Your task to perform on an android device: Open notification settings Image 0: 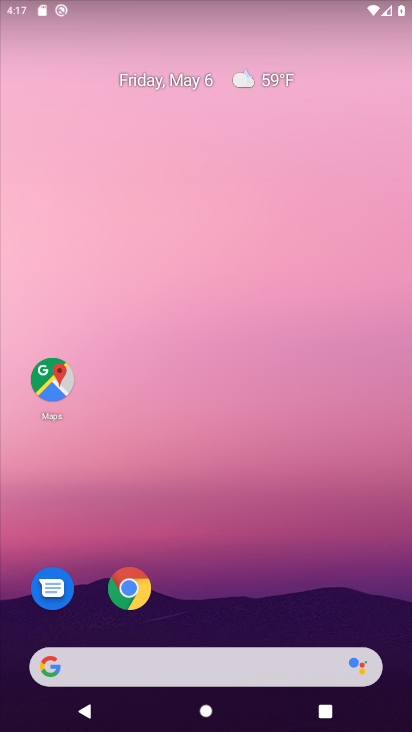
Step 0: drag from (231, 726) to (233, 273)
Your task to perform on an android device: Open notification settings Image 1: 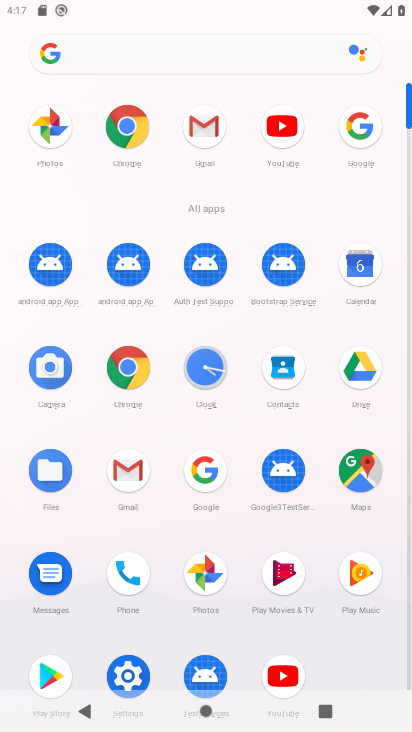
Step 1: click (122, 672)
Your task to perform on an android device: Open notification settings Image 2: 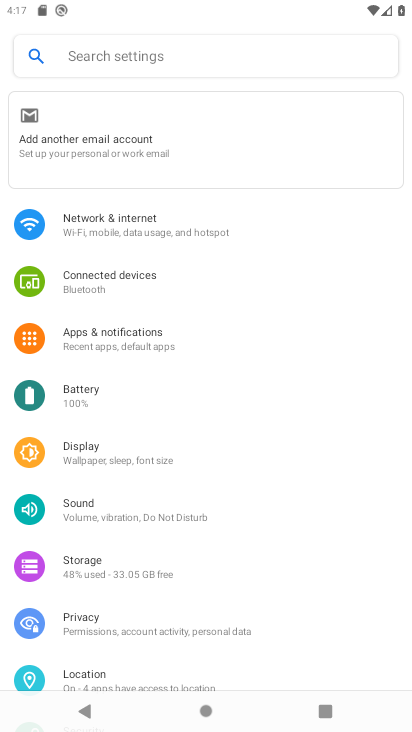
Step 2: click (120, 338)
Your task to perform on an android device: Open notification settings Image 3: 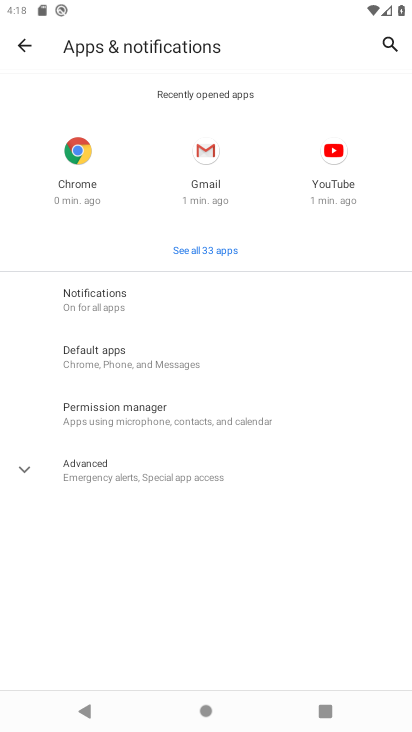
Step 3: click (103, 294)
Your task to perform on an android device: Open notification settings Image 4: 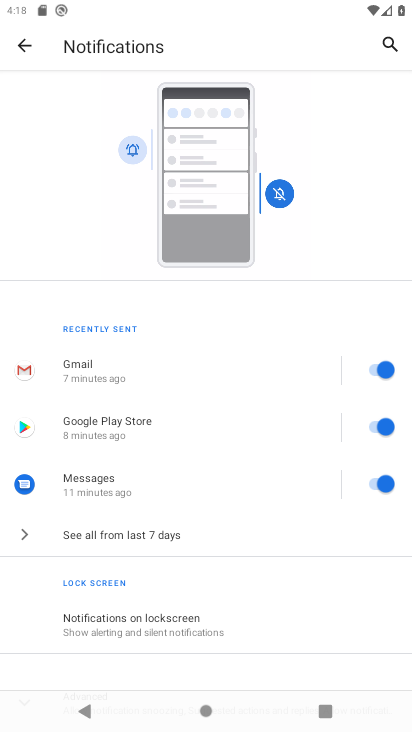
Step 4: task complete